Your task to perform on an android device: Search for vegetarian restaurants on Maps Image 0: 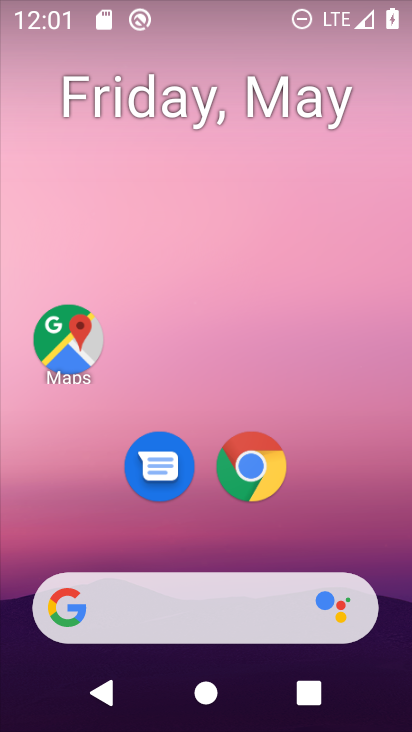
Step 0: drag from (314, 537) to (379, 31)
Your task to perform on an android device: Search for vegetarian restaurants on Maps Image 1: 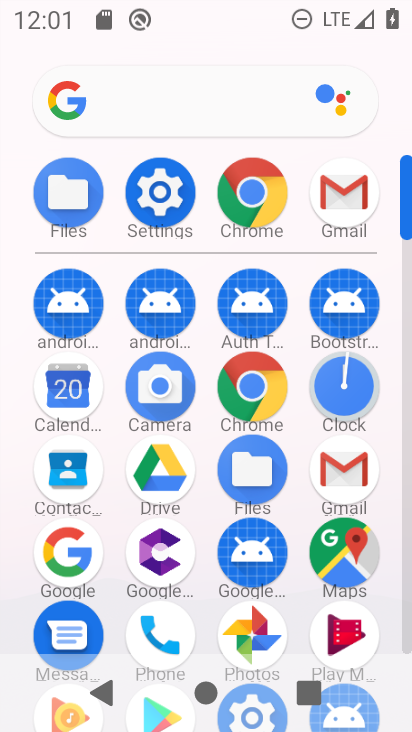
Step 1: click (364, 556)
Your task to perform on an android device: Search for vegetarian restaurants on Maps Image 2: 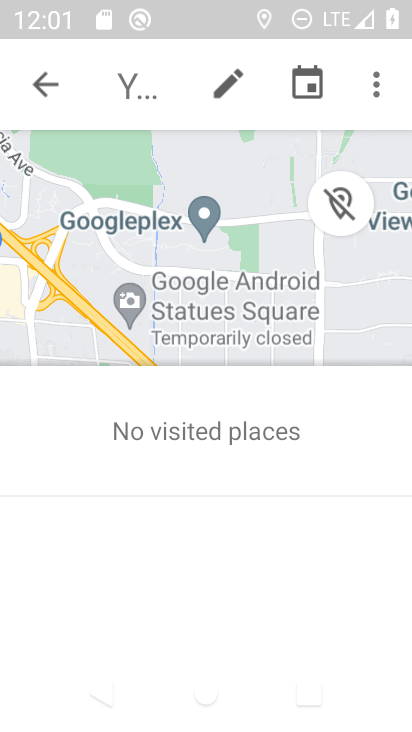
Step 2: press back button
Your task to perform on an android device: Search for vegetarian restaurants on Maps Image 3: 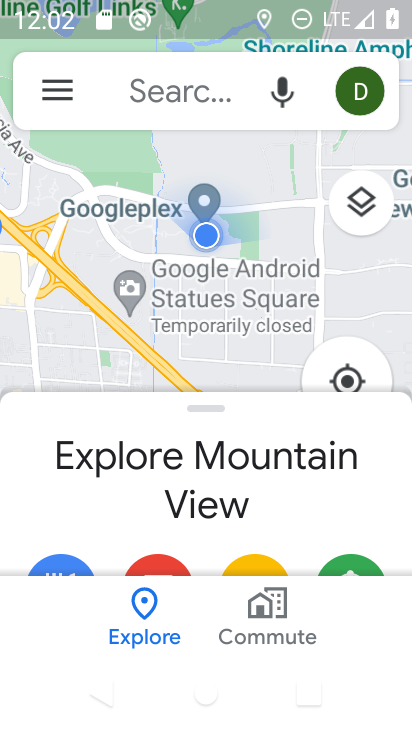
Step 3: click (168, 103)
Your task to perform on an android device: Search for vegetarian restaurants on Maps Image 4: 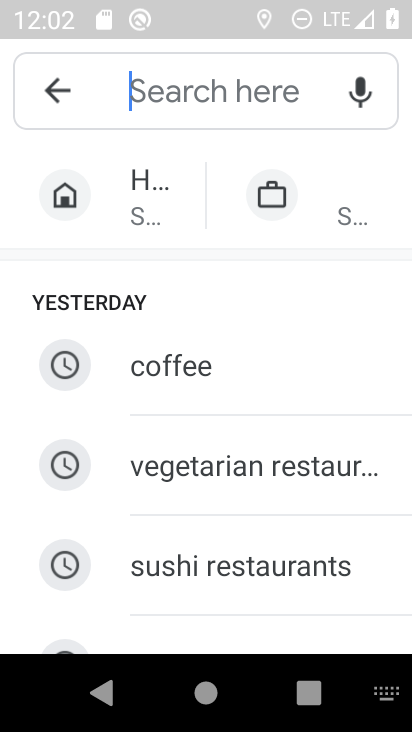
Step 4: click (349, 460)
Your task to perform on an android device: Search for vegetarian restaurants on Maps Image 5: 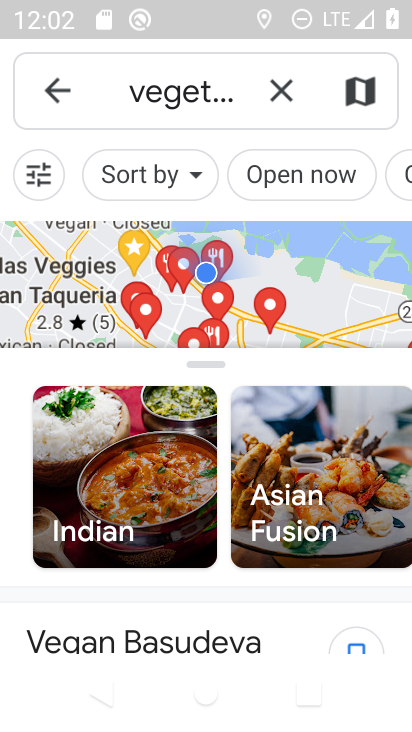
Step 5: task complete